Your task to perform on an android device: Go to wifi settings Image 0: 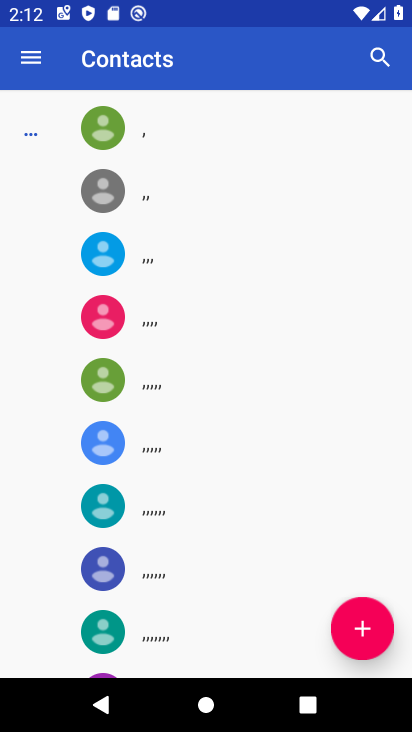
Step 0: press home button
Your task to perform on an android device: Go to wifi settings Image 1: 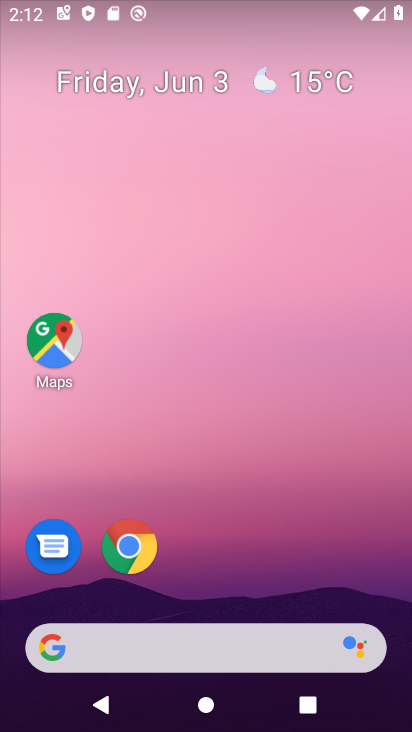
Step 1: drag from (246, 565) to (176, 3)
Your task to perform on an android device: Go to wifi settings Image 2: 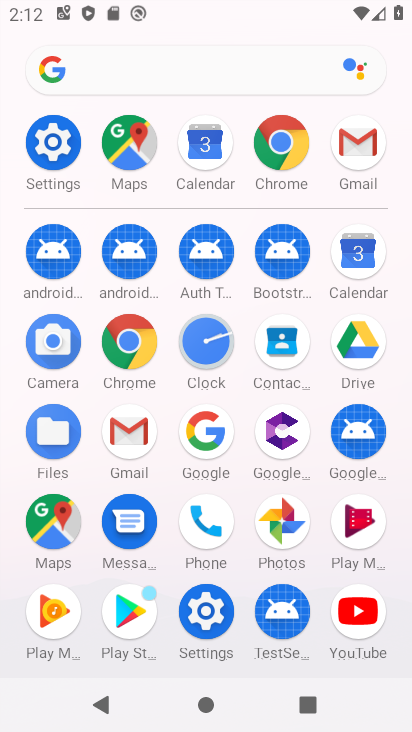
Step 2: click (51, 142)
Your task to perform on an android device: Go to wifi settings Image 3: 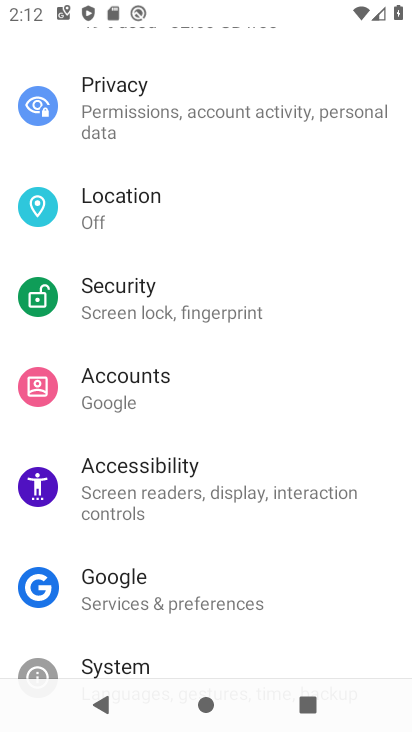
Step 3: drag from (151, 182) to (204, 662)
Your task to perform on an android device: Go to wifi settings Image 4: 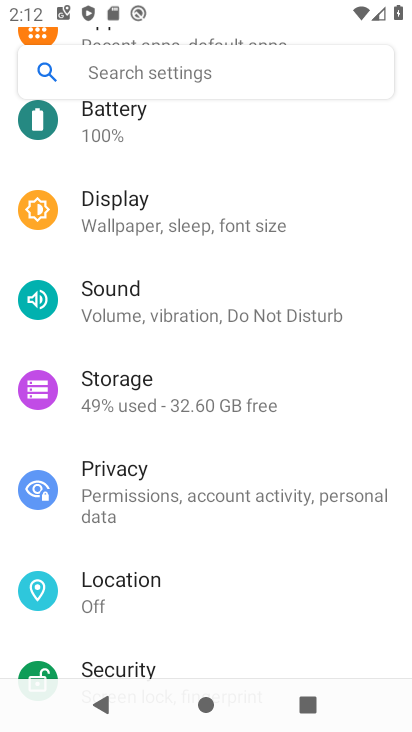
Step 4: drag from (248, 171) to (261, 614)
Your task to perform on an android device: Go to wifi settings Image 5: 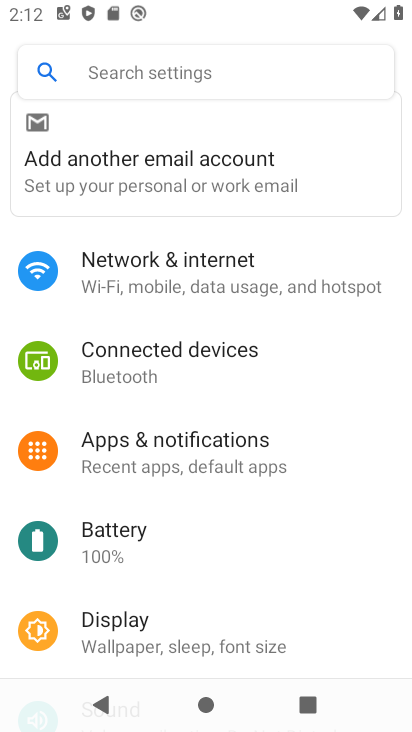
Step 5: drag from (203, 240) to (237, 660)
Your task to perform on an android device: Go to wifi settings Image 6: 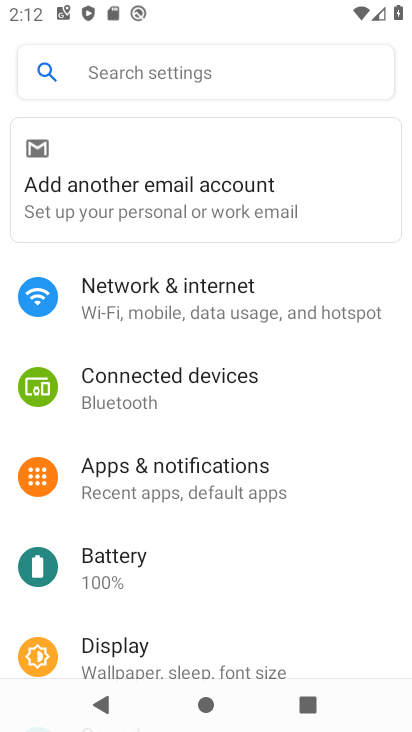
Step 6: click (119, 311)
Your task to perform on an android device: Go to wifi settings Image 7: 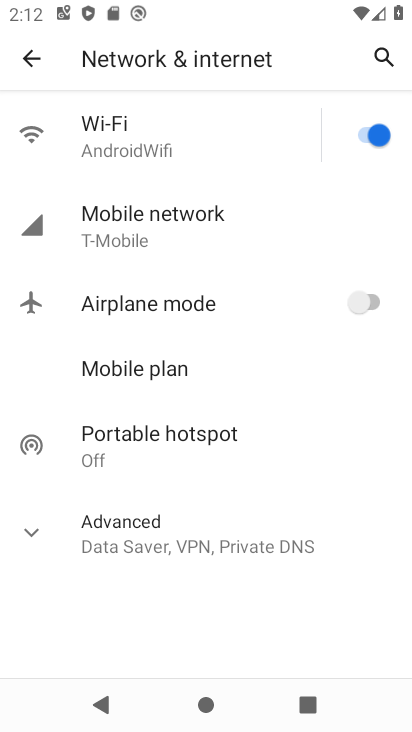
Step 7: task complete